Your task to perform on an android device: Open Google Chrome and click the shortcut for Amazon.com Image 0: 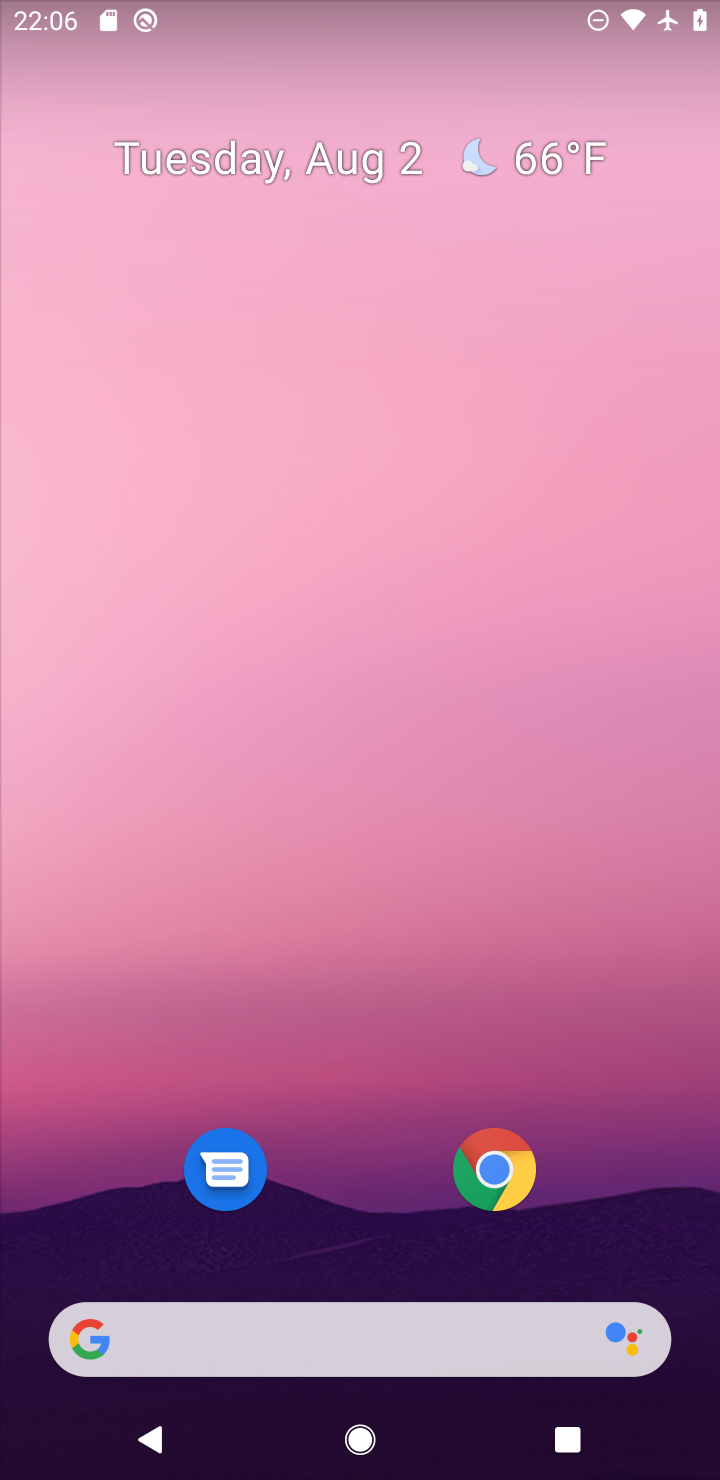
Step 0: click (496, 1174)
Your task to perform on an android device: Open Google Chrome and click the shortcut for Amazon.com Image 1: 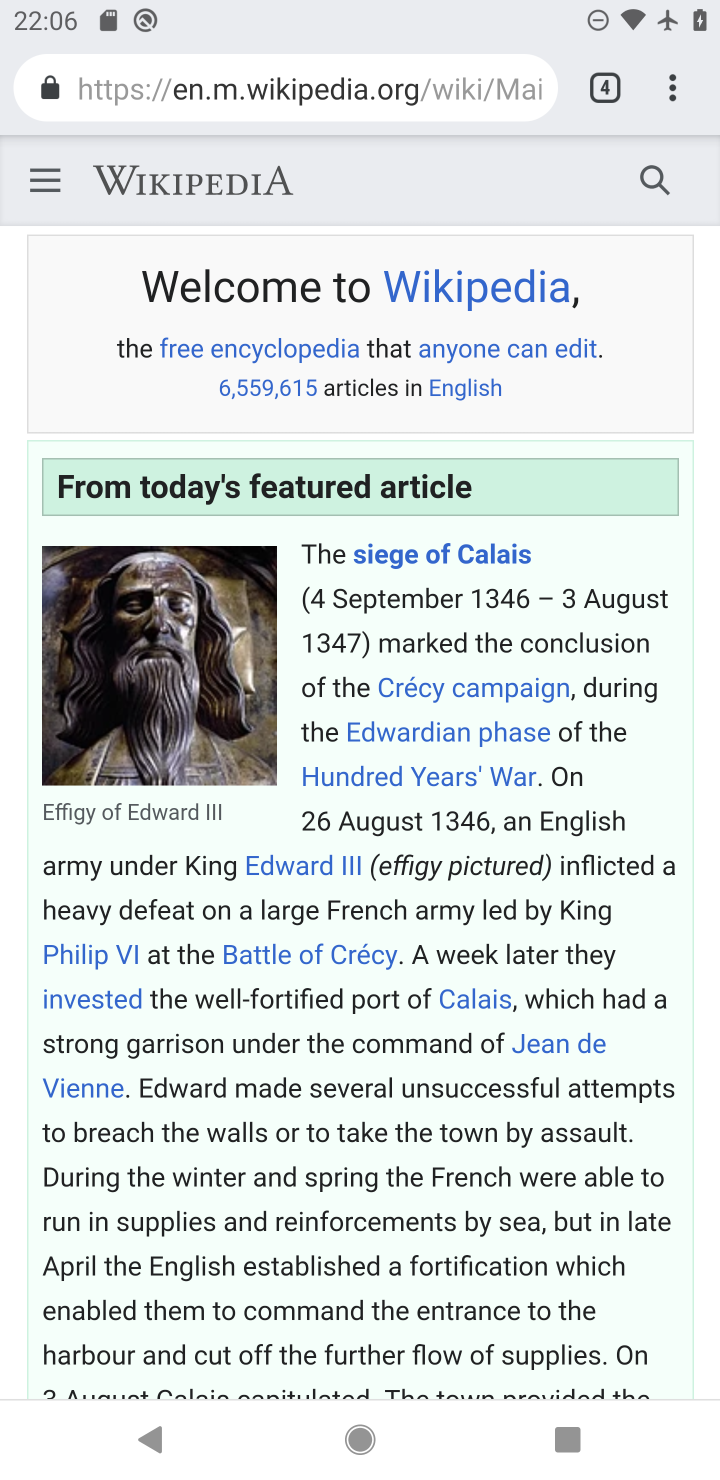
Step 1: click (674, 94)
Your task to perform on an android device: Open Google Chrome and click the shortcut for Amazon.com Image 2: 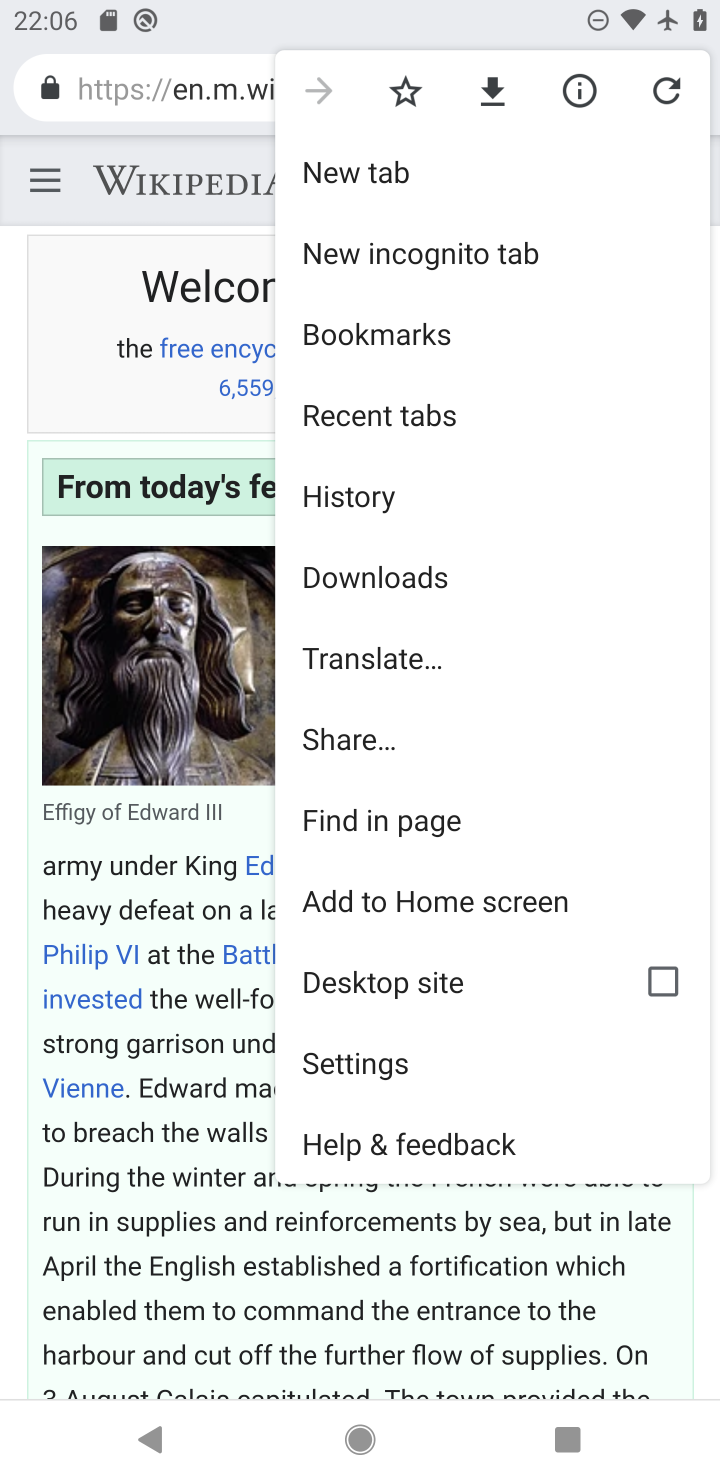
Step 2: click (371, 159)
Your task to perform on an android device: Open Google Chrome and click the shortcut for Amazon.com Image 3: 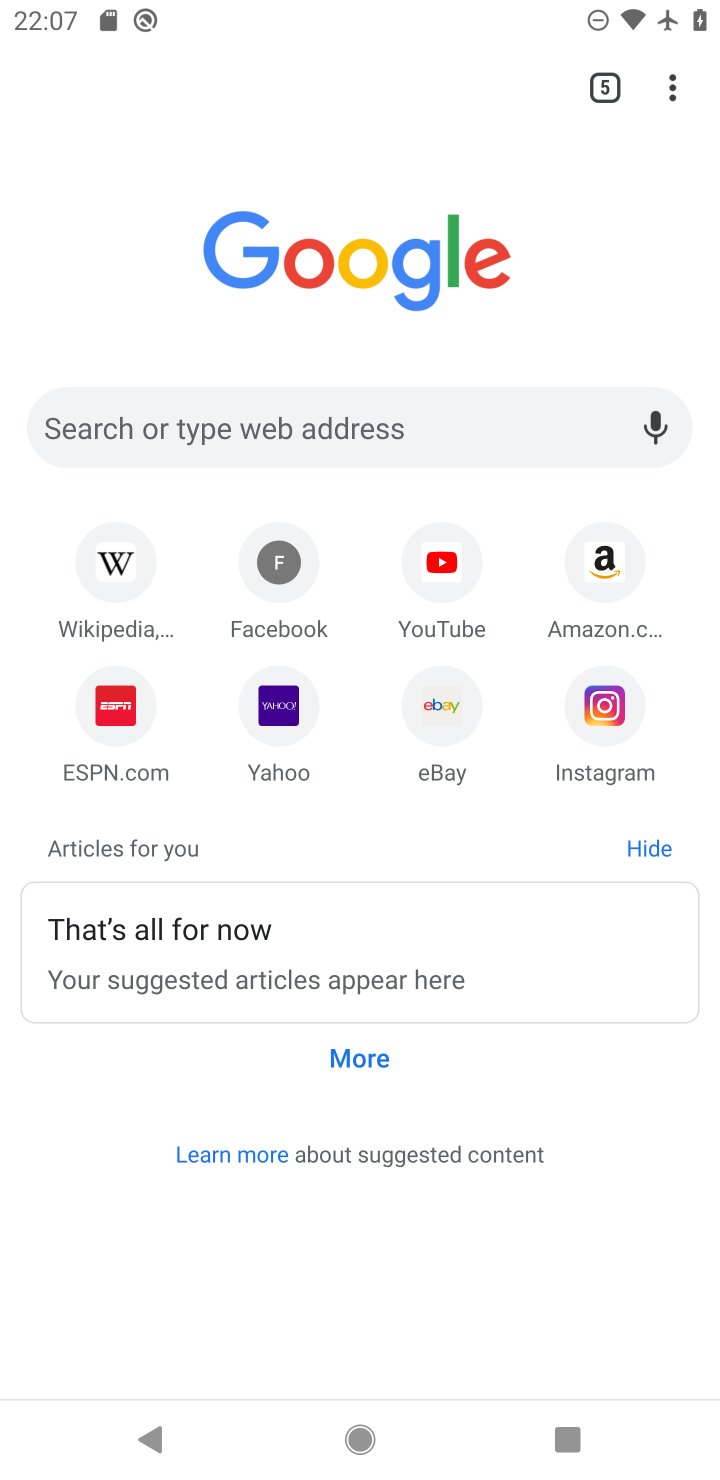
Step 3: click (601, 567)
Your task to perform on an android device: Open Google Chrome and click the shortcut for Amazon.com Image 4: 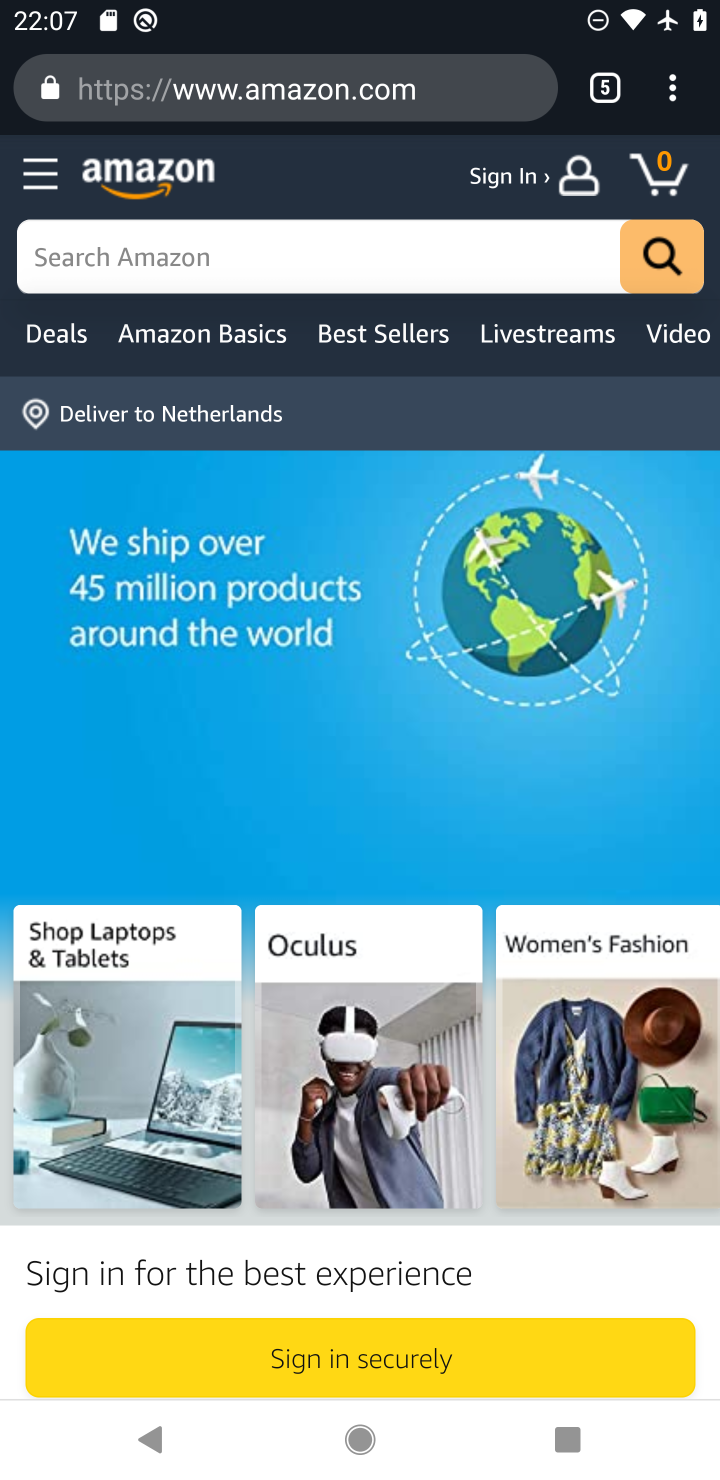
Step 4: task complete